Your task to perform on an android device: move an email to a new category in the gmail app Image 0: 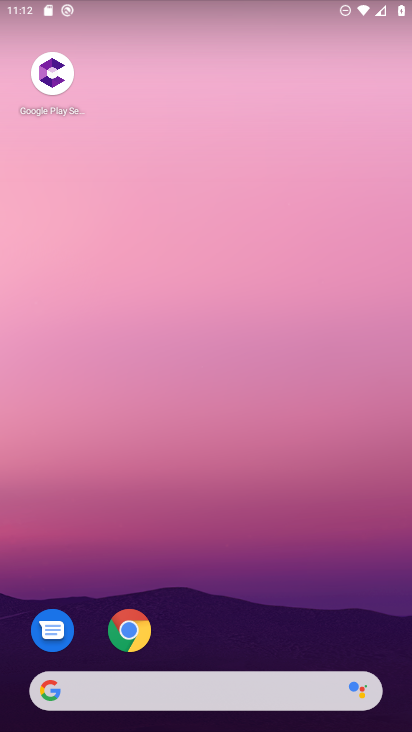
Step 0: drag from (205, 564) to (206, 191)
Your task to perform on an android device: move an email to a new category in the gmail app Image 1: 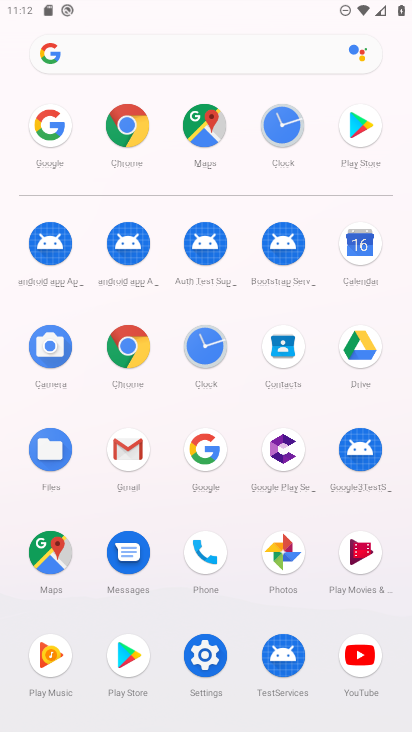
Step 1: click (130, 477)
Your task to perform on an android device: move an email to a new category in the gmail app Image 2: 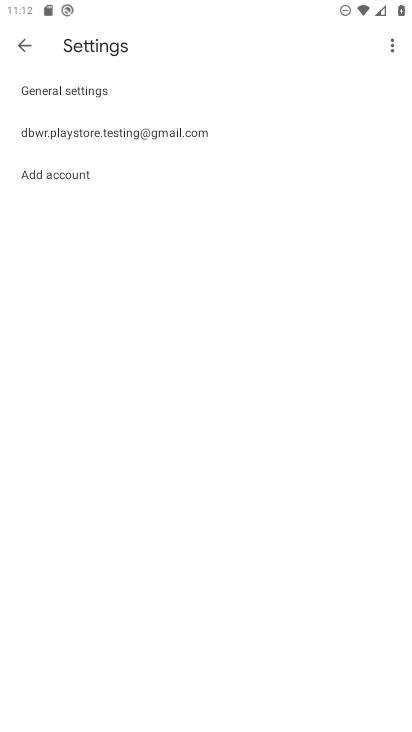
Step 2: click (23, 51)
Your task to perform on an android device: move an email to a new category in the gmail app Image 3: 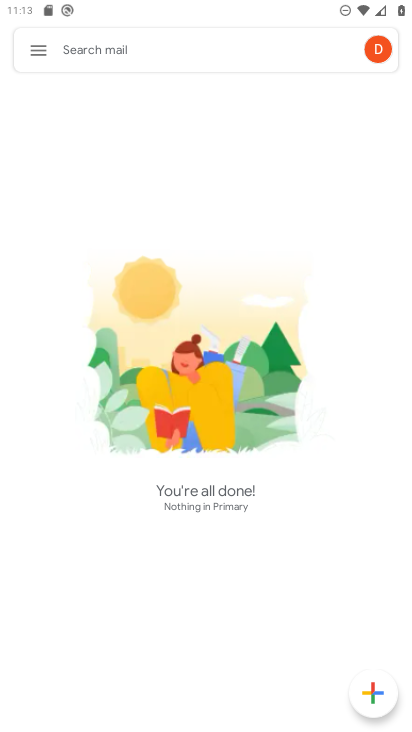
Step 3: click (20, 40)
Your task to perform on an android device: move an email to a new category in the gmail app Image 4: 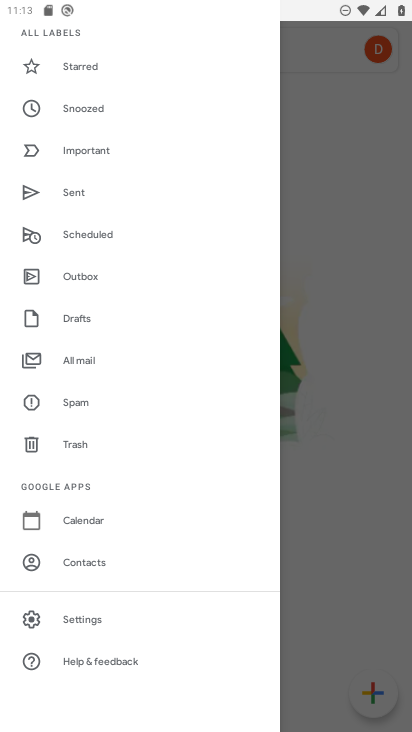
Step 4: click (91, 352)
Your task to perform on an android device: move an email to a new category in the gmail app Image 5: 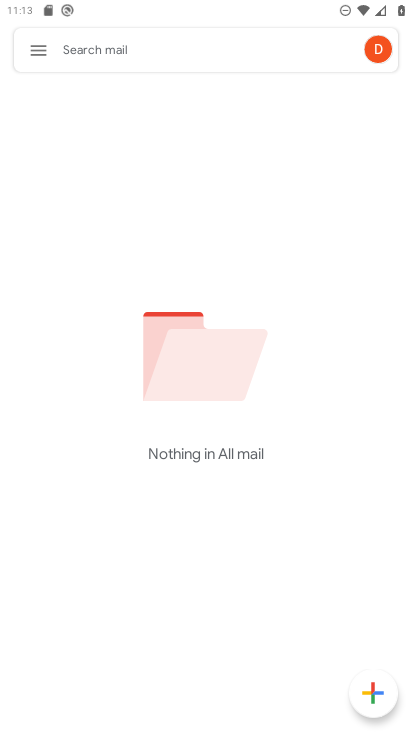
Step 5: click (37, 54)
Your task to perform on an android device: move an email to a new category in the gmail app Image 6: 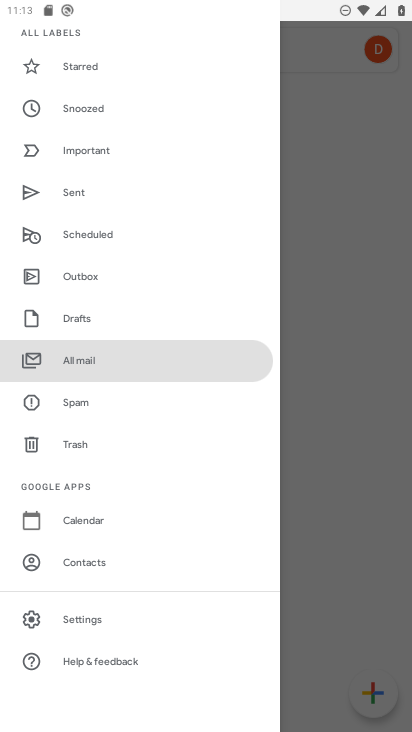
Step 6: click (368, 238)
Your task to perform on an android device: move an email to a new category in the gmail app Image 7: 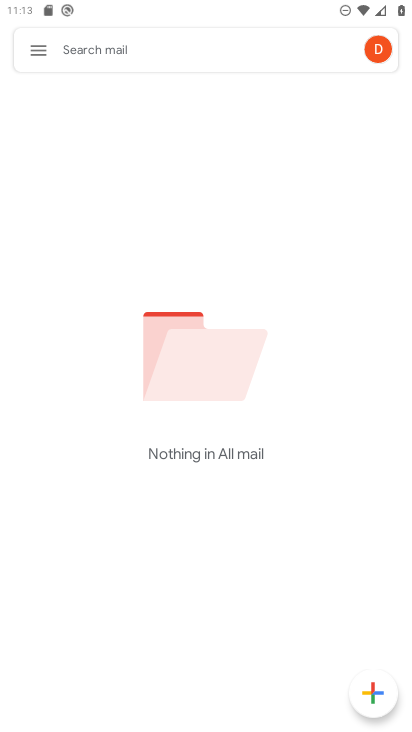
Step 7: task complete